Your task to perform on an android device: turn on the 12-hour format for clock Image 0: 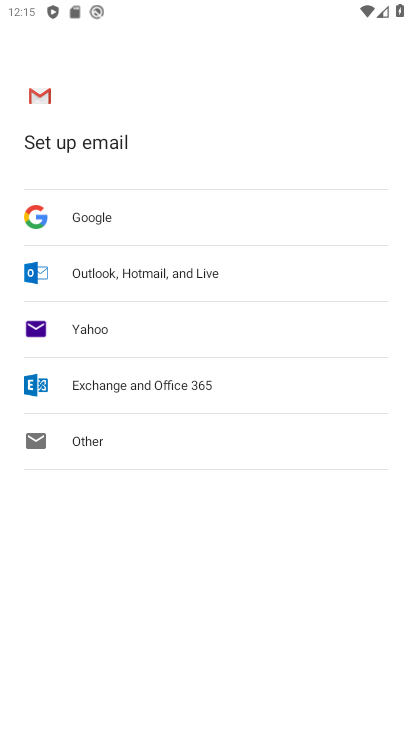
Step 0: press home button
Your task to perform on an android device: turn on the 12-hour format for clock Image 1: 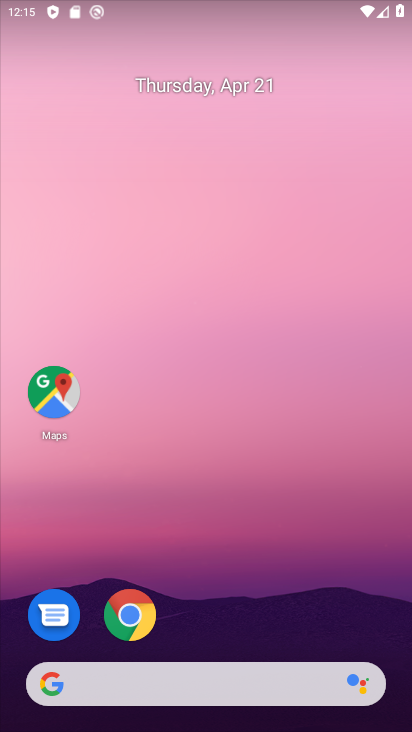
Step 1: drag from (218, 606) to (248, 23)
Your task to perform on an android device: turn on the 12-hour format for clock Image 2: 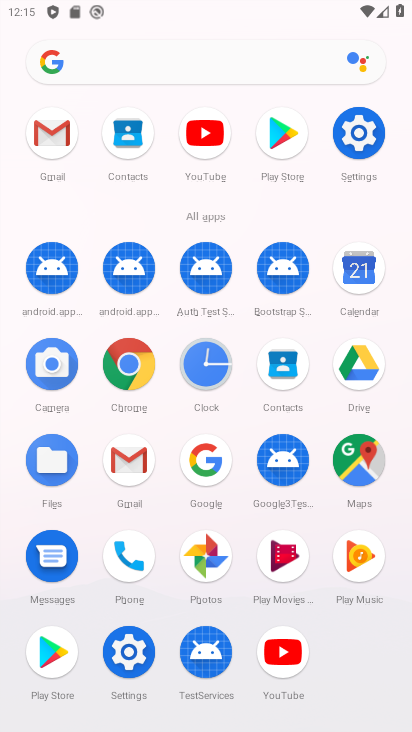
Step 2: click (203, 370)
Your task to perform on an android device: turn on the 12-hour format for clock Image 3: 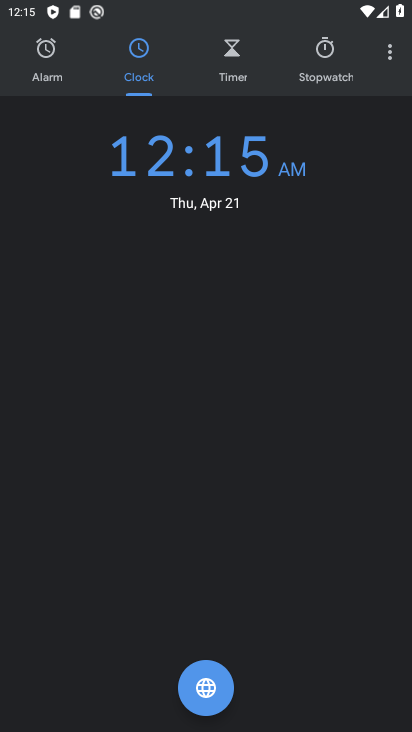
Step 3: click (390, 45)
Your task to perform on an android device: turn on the 12-hour format for clock Image 4: 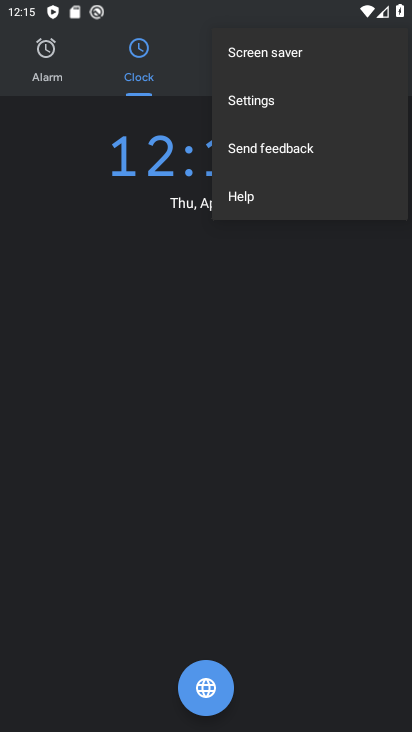
Step 4: click (279, 103)
Your task to perform on an android device: turn on the 12-hour format for clock Image 5: 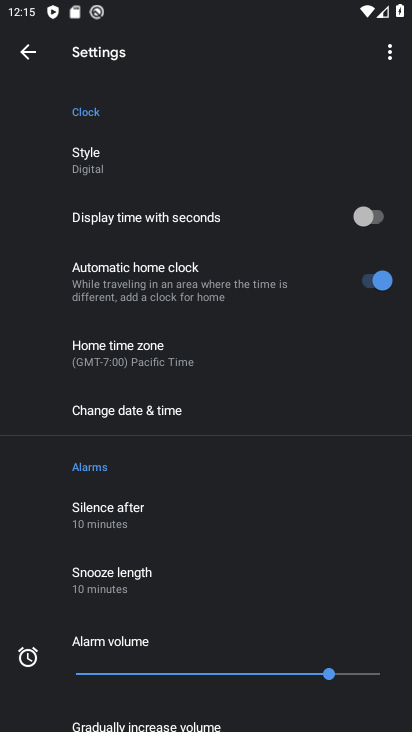
Step 5: click (159, 405)
Your task to perform on an android device: turn on the 12-hour format for clock Image 6: 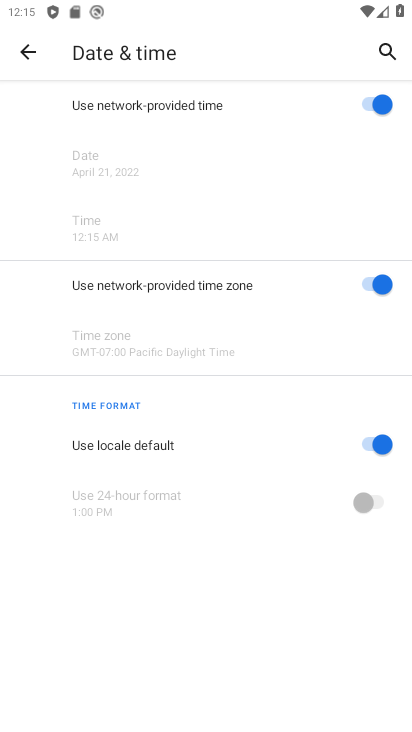
Step 6: click (367, 439)
Your task to perform on an android device: turn on the 12-hour format for clock Image 7: 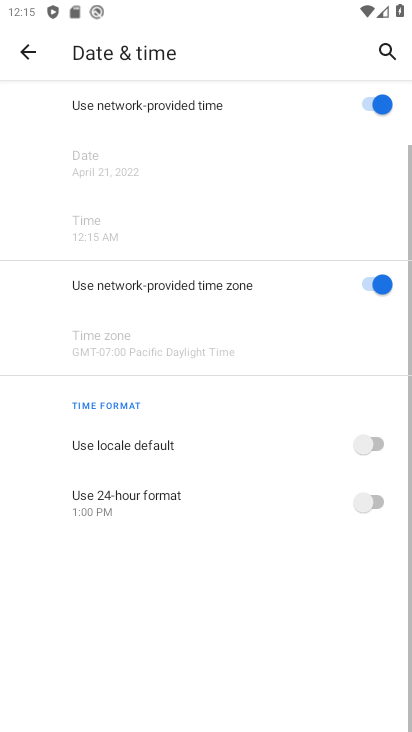
Step 7: click (367, 439)
Your task to perform on an android device: turn on the 12-hour format for clock Image 8: 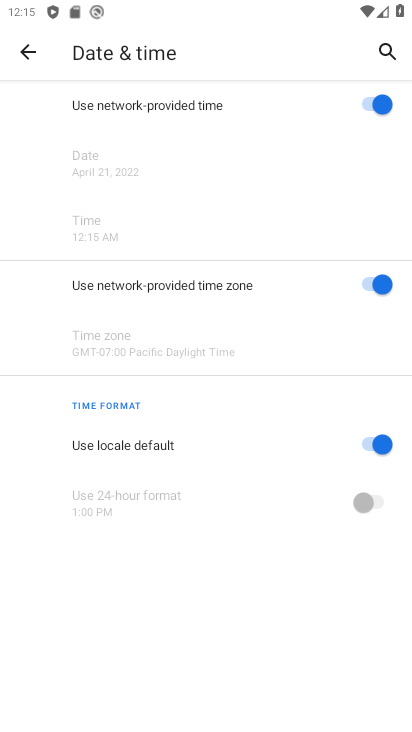
Step 8: task complete